Your task to perform on an android device: Show me the alarms in the clock app Image 0: 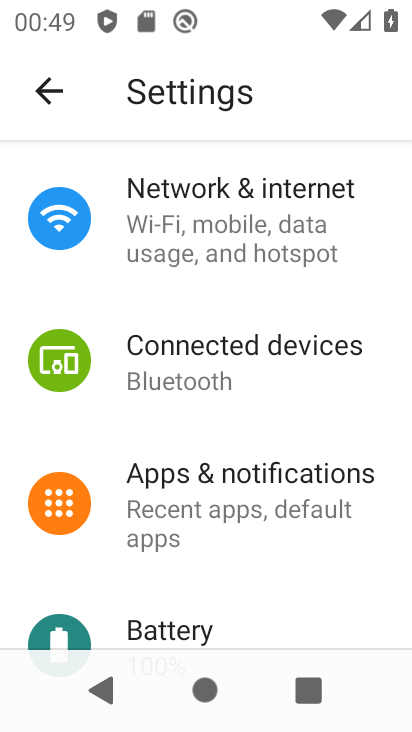
Step 0: press home button
Your task to perform on an android device: Show me the alarms in the clock app Image 1: 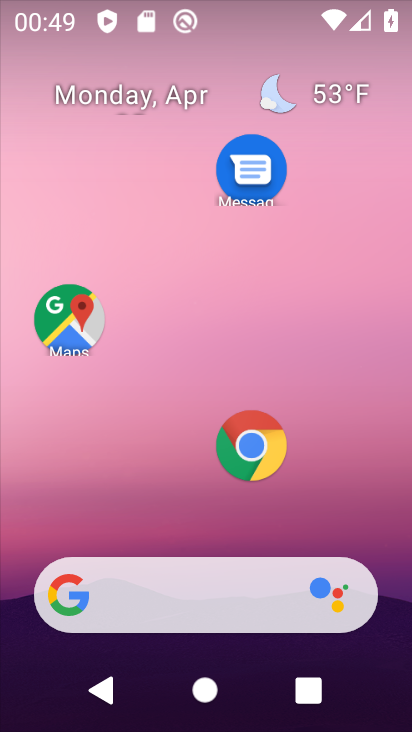
Step 1: drag from (179, 525) to (258, 16)
Your task to perform on an android device: Show me the alarms in the clock app Image 2: 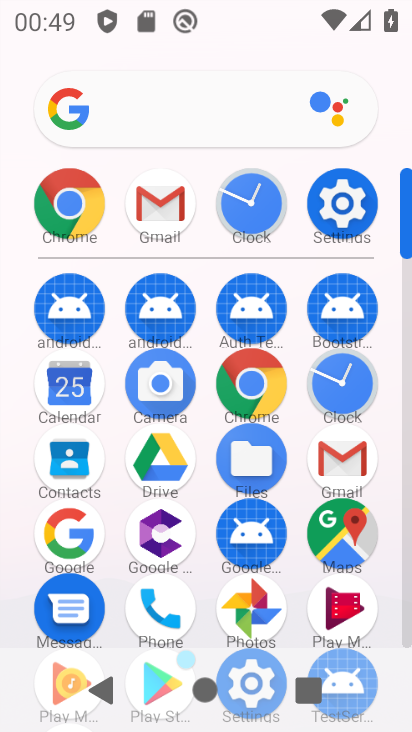
Step 2: click (345, 373)
Your task to perform on an android device: Show me the alarms in the clock app Image 3: 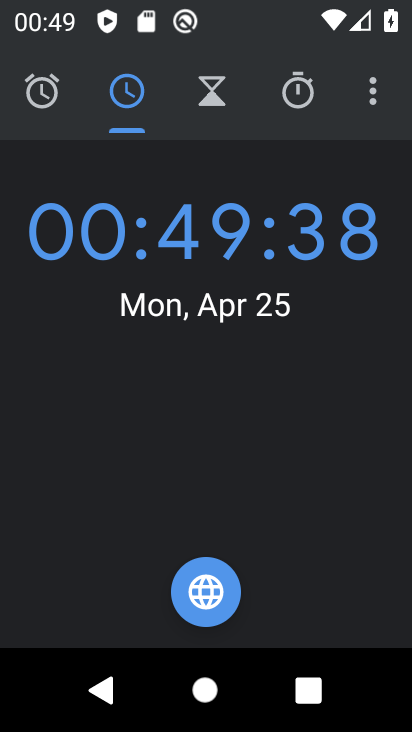
Step 3: click (43, 110)
Your task to perform on an android device: Show me the alarms in the clock app Image 4: 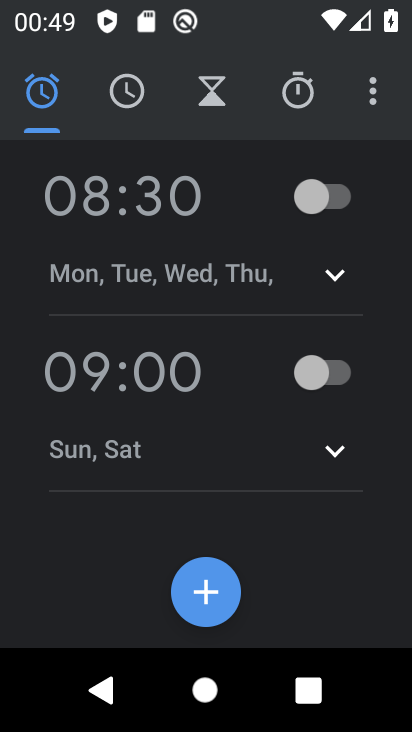
Step 4: task complete